Your task to perform on an android device: What's the weather going to be tomorrow? Image 0: 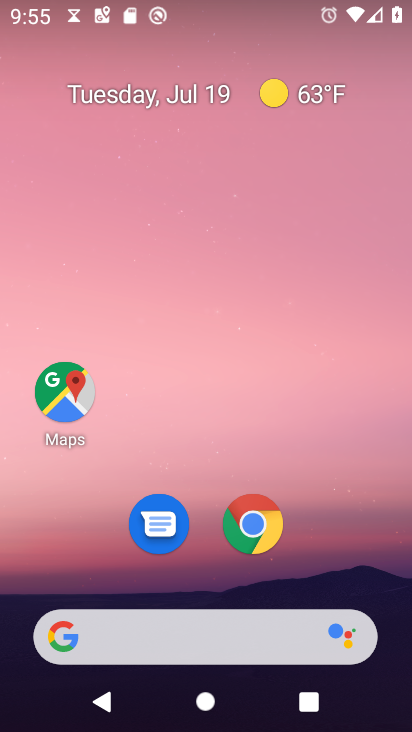
Step 0: click (168, 626)
Your task to perform on an android device: What's the weather going to be tomorrow? Image 1: 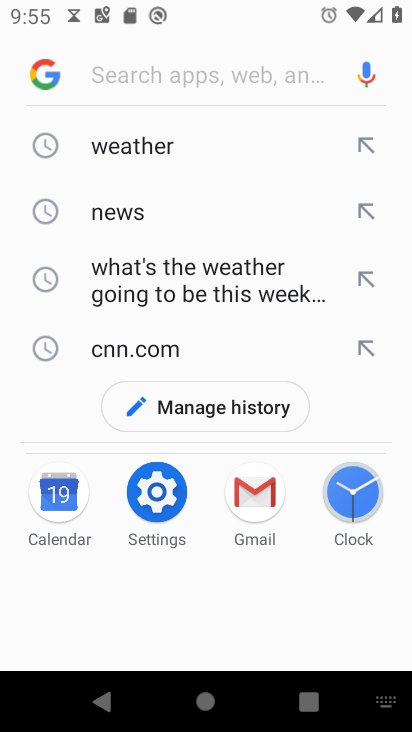
Step 1: click (141, 142)
Your task to perform on an android device: What's the weather going to be tomorrow? Image 2: 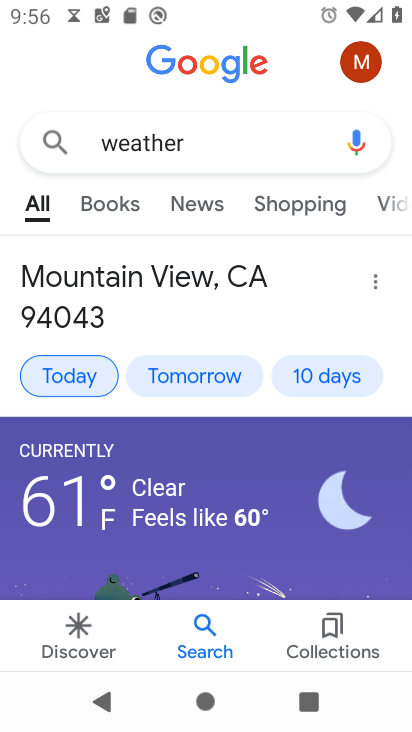
Step 2: click (205, 376)
Your task to perform on an android device: What's the weather going to be tomorrow? Image 3: 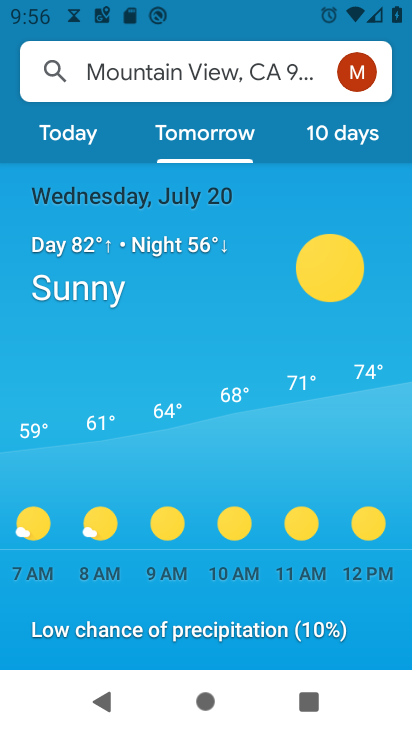
Step 3: task complete